Your task to perform on an android device: turn pop-ups on in chrome Image 0: 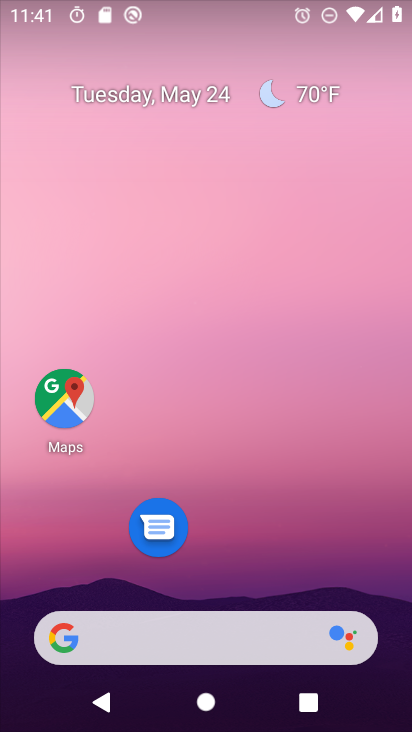
Step 0: drag from (256, 565) to (284, 83)
Your task to perform on an android device: turn pop-ups on in chrome Image 1: 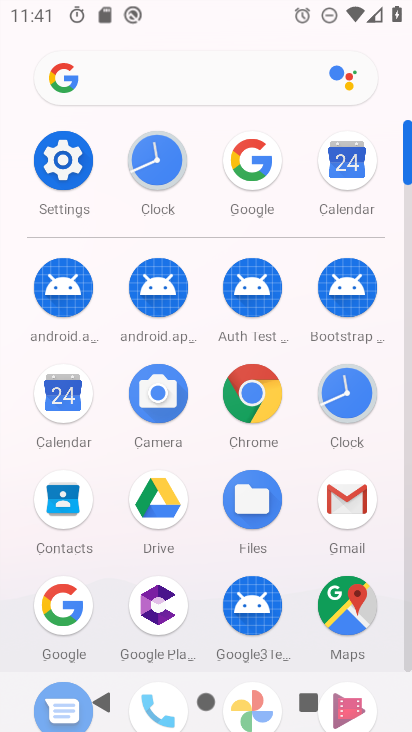
Step 1: click (253, 386)
Your task to perform on an android device: turn pop-ups on in chrome Image 2: 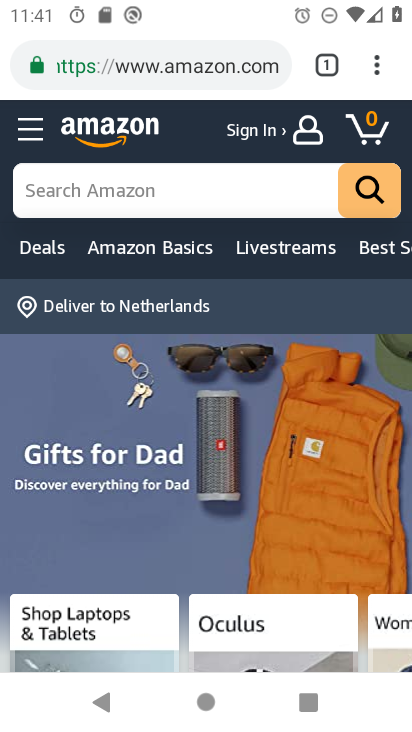
Step 2: click (370, 65)
Your task to perform on an android device: turn pop-ups on in chrome Image 3: 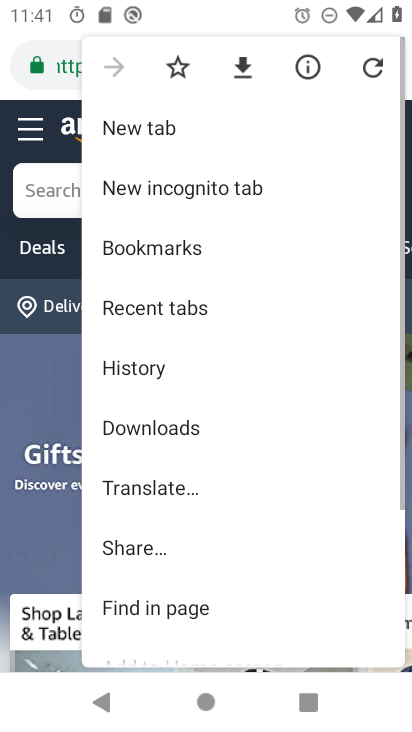
Step 3: drag from (266, 550) to (253, 132)
Your task to perform on an android device: turn pop-ups on in chrome Image 4: 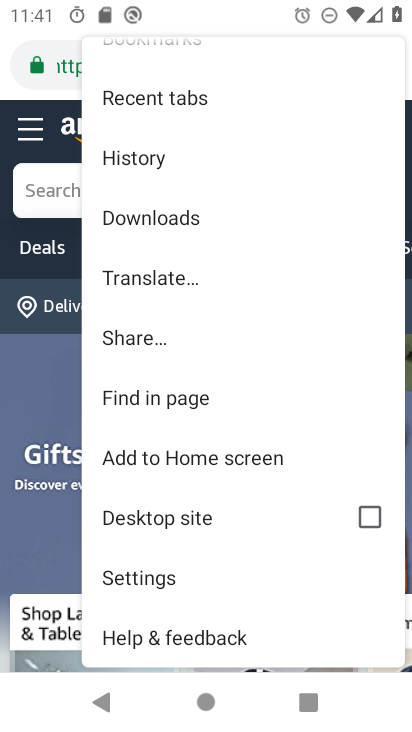
Step 4: click (165, 584)
Your task to perform on an android device: turn pop-ups on in chrome Image 5: 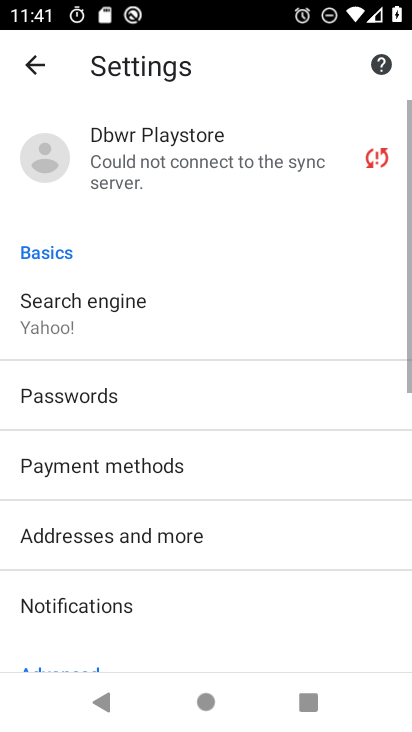
Step 5: drag from (251, 579) to (288, 194)
Your task to perform on an android device: turn pop-ups on in chrome Image 6: 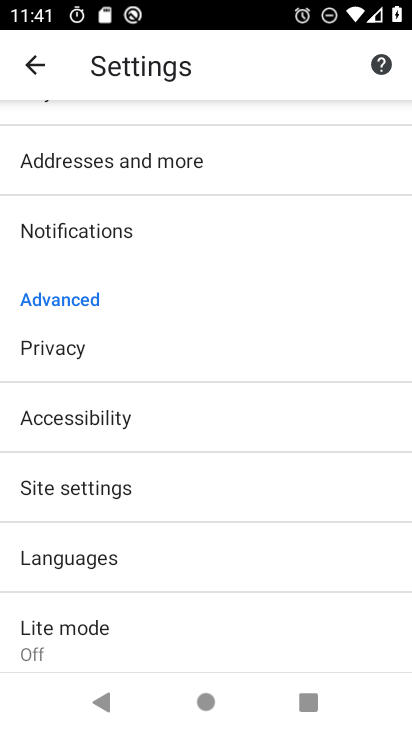
Step 6: click (126, 490)
Your task to perform on an android device: turn pop-ups on in chrome Image 7: 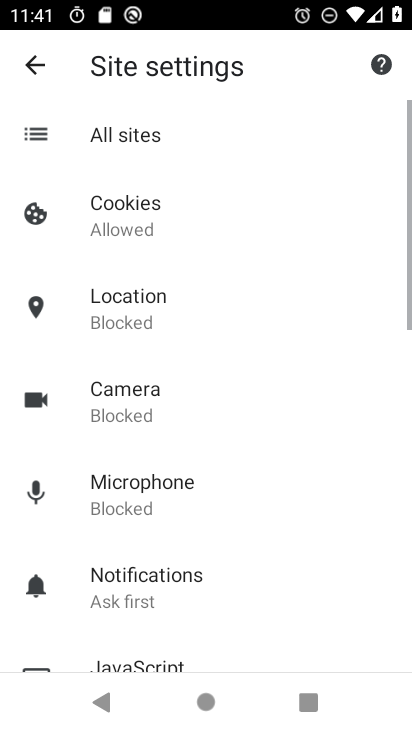
Step 7: drag from (275, 590) to (330, 98)
Your task to perform on an android device: turn pop-ups on in chrome Image 8: 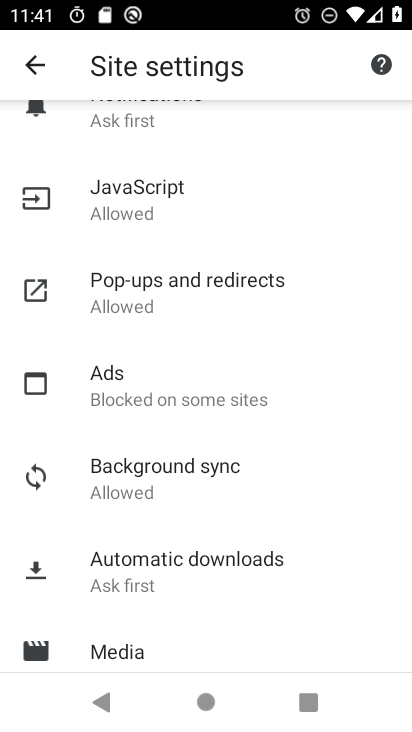
Step 8: click (190, 303)
Your task to perform on an android device: turn pop-ups on in chrome Image 9: 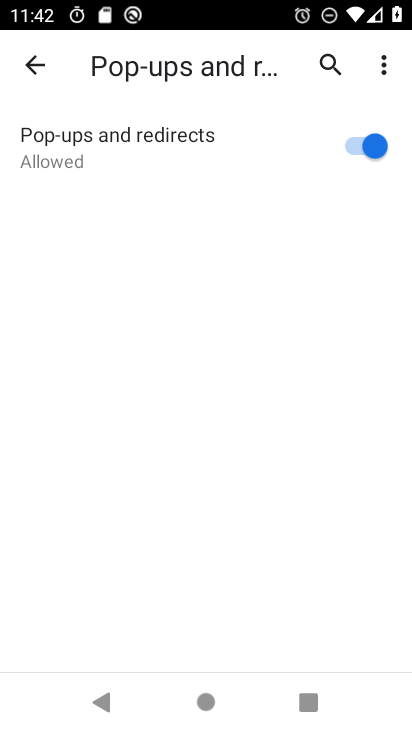
Step 9: task complete